Your task to perform on an android device: Do I have any events today? Image 0: 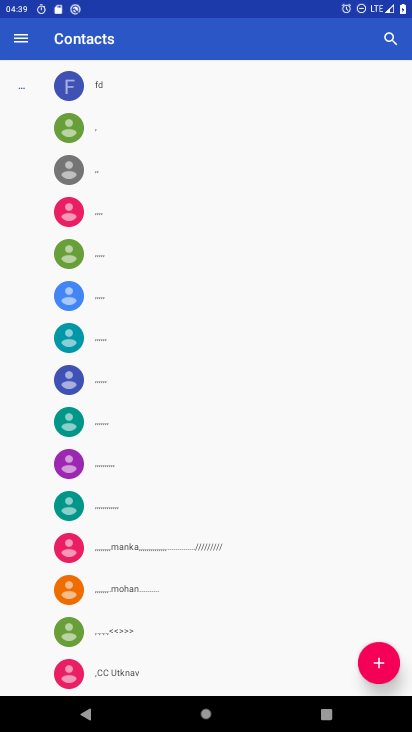
Step 0: press home button
Your task to perform on an android device: Do I have any events today? Image 1: 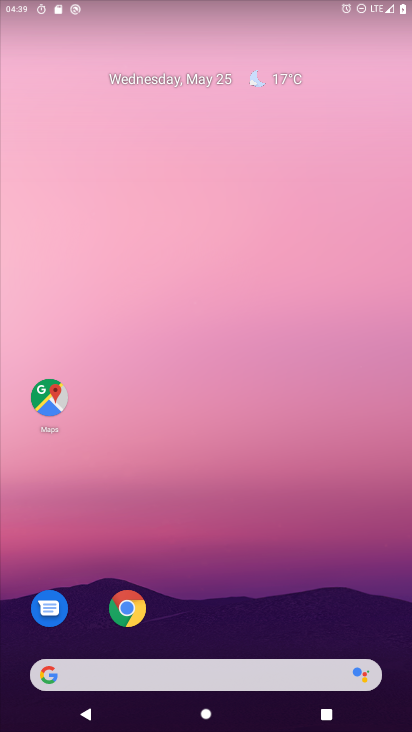
Step 1: drag from (283, 552) to (247, 103)
Your task to perform on an android device: Do I have any events today? Image 2: 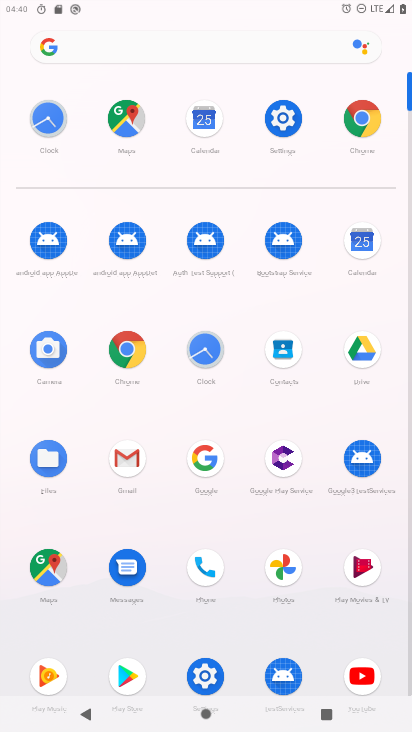
Step 2: click (363, 259)
Your task to perform on an android device: Do I have any events today? Image 3: 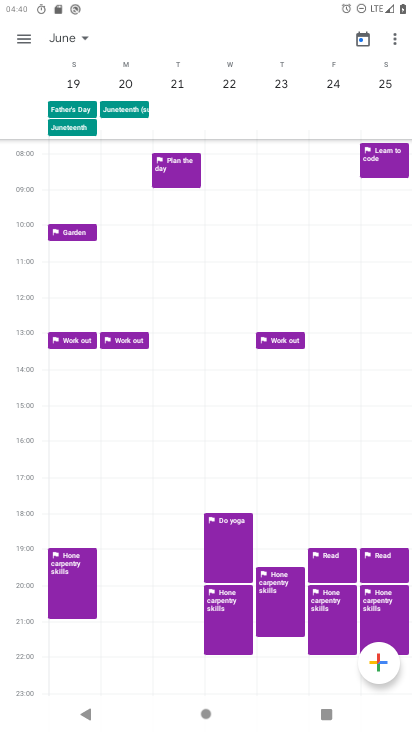
Step 3: click (79, 34)
Your task to perform on an android device: Do I have any events today? Image 4: 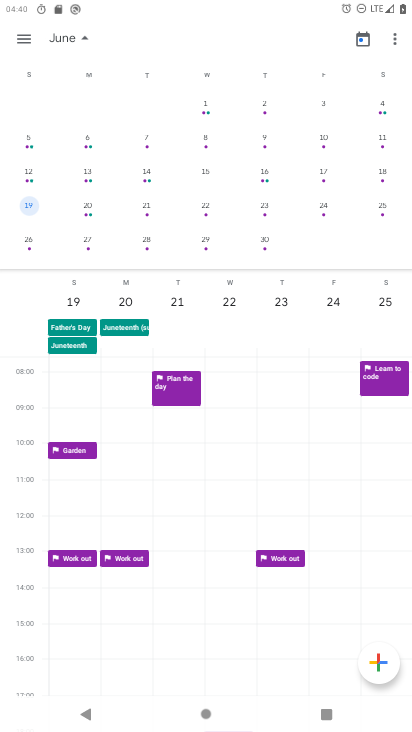
Step 4: drag from (68, 163) to (408, 151)
Your task to perform on an android device: Do I have any events today? Image 5: 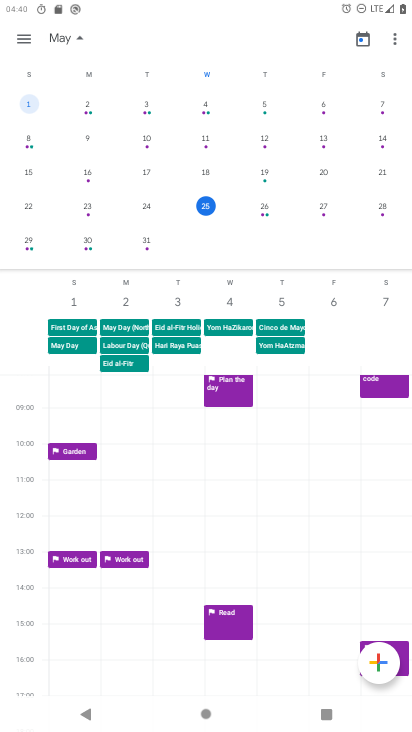
Step 5: click (210, 200)
Your task to perform on an android device: Do I have any events today? Image 6: 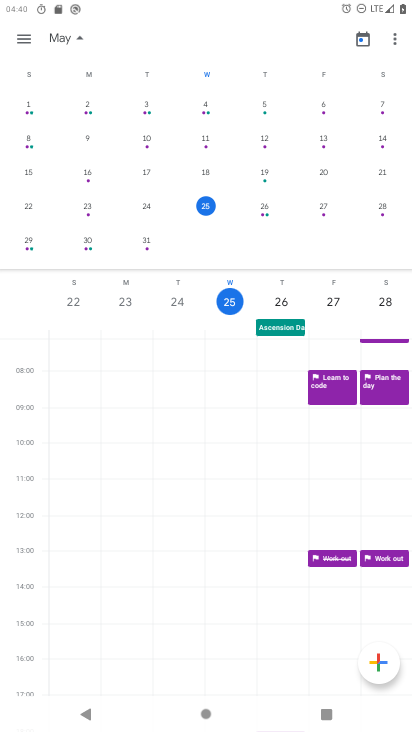
Step 6: task complete